Your task to perform on an android device: Go to accessibility settings Image 0: 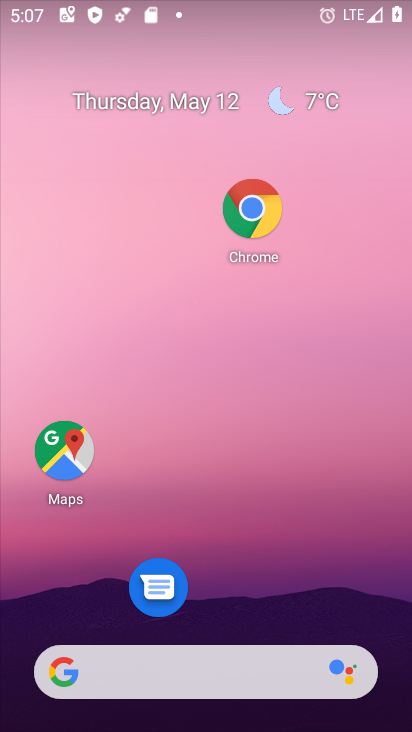
Step 0: drag from (296, 612) to (258, 33)
Your task to perform on an android device: Go to accessibility settings Image 1: 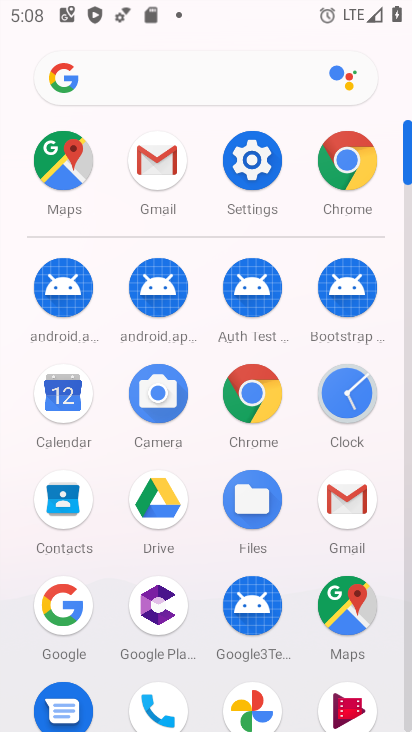
Step 1: click (256, 166)
Your task to perform on an android device: Go to accessibility settings Image 2: 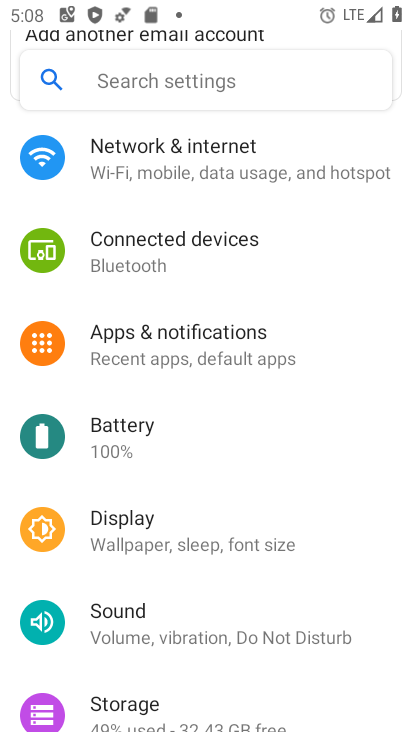
Step 2: drag from (189, 583) to (237, 254)
Your task to perform on an android device: Go to accessibility settings Image 3: 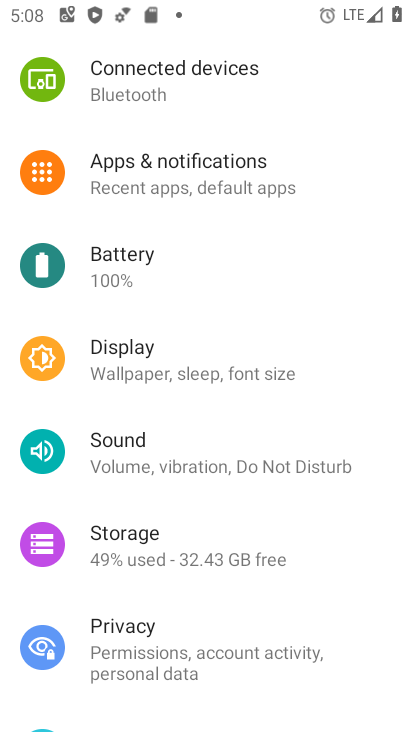
Step 3: drag from (196, 630) to (237, 264)
Your task to perform on an android device: Go to accessibility settings Image 4: 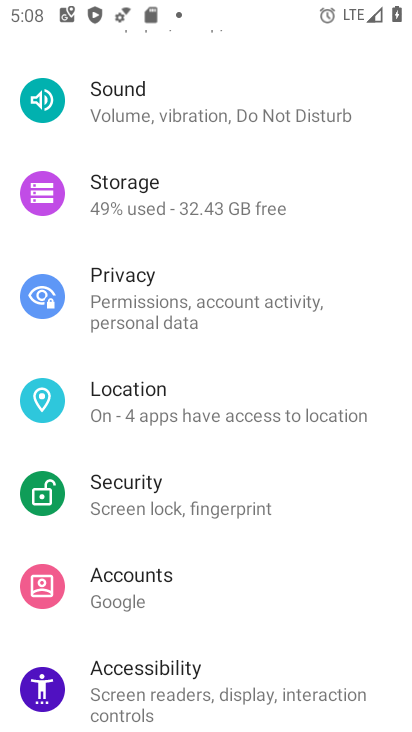
Step 4: click (114, 691)
Your task to perform on an android device: Go to accessibility settings Image 5: 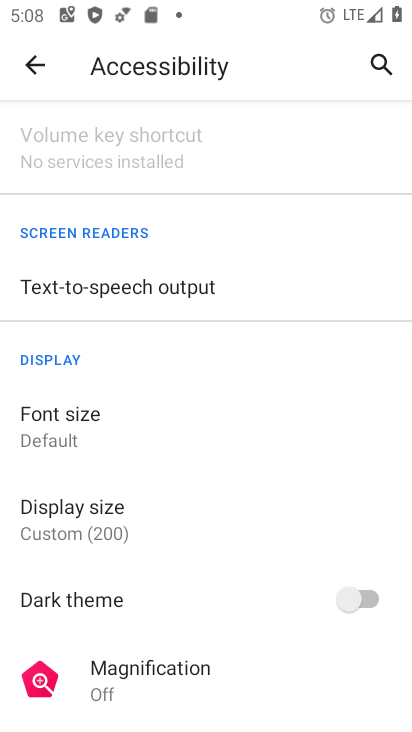
Step 5: task complete